Your task to perform on an android device: uninstall "Microsoft Outlook" Image 0: 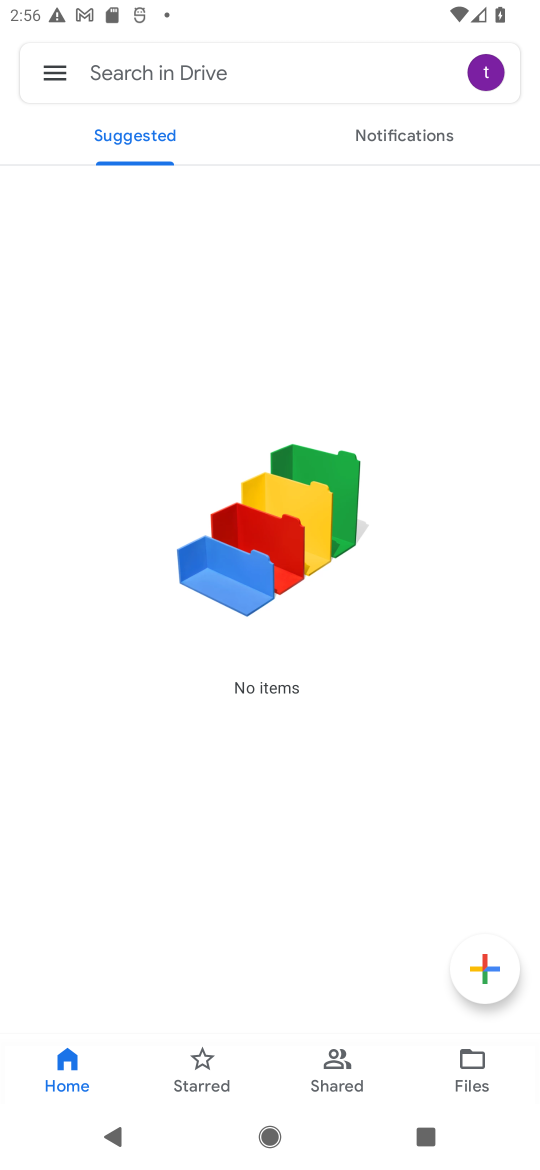
Step 0: press home button
Your task to perform on an android device: uninstall "Microsoft Outlook" Image 1: 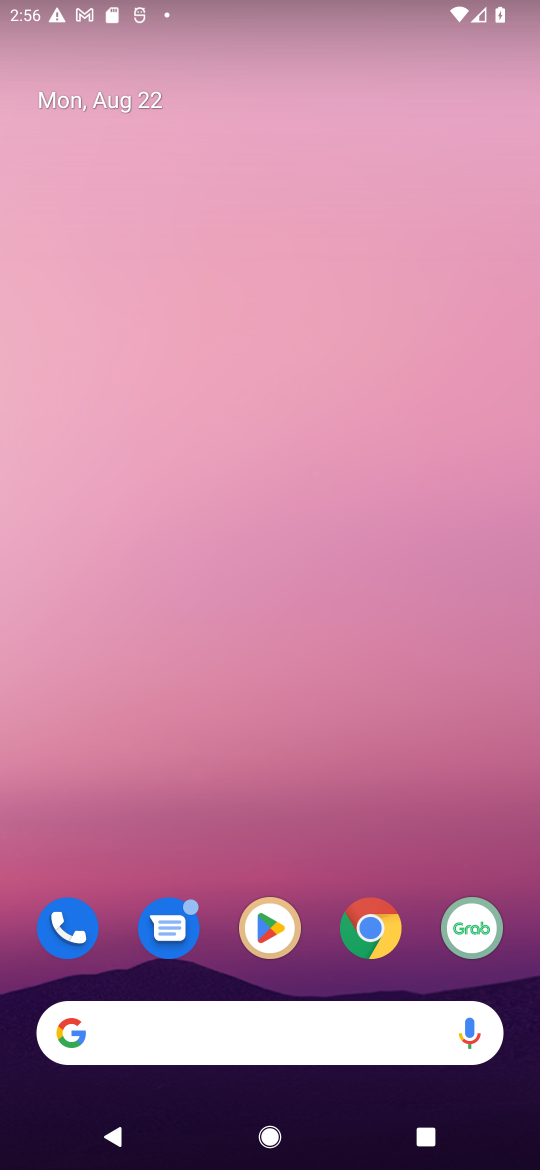
Step 1: click (258, 933)
Your task to perform on an android device: uninstall "Microsoft Outlook" Image 2: 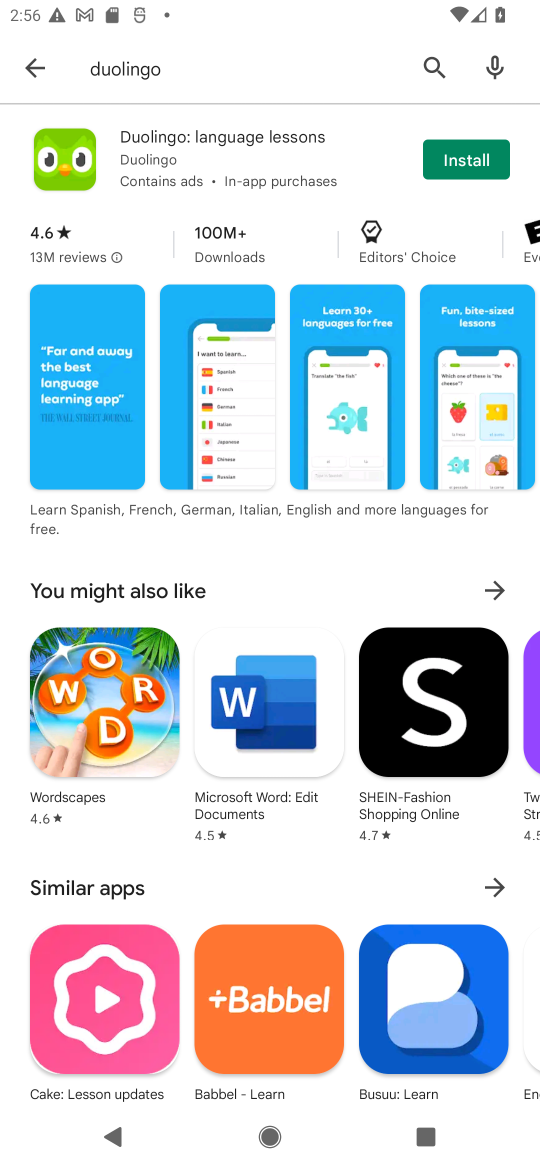
Step 2: click (214, 73)
Your task to perform on an android device: uninstall "Microsoft Outlook" Image 3: 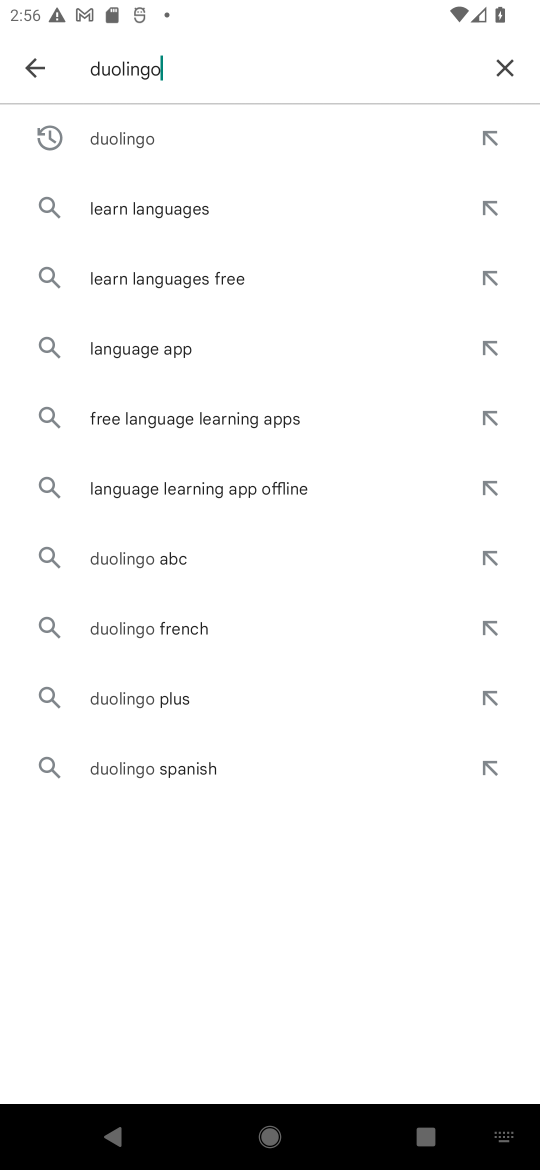
Step 3: click (502, 65)
Your task to perform on an android device: uninstall "Microsoft Outlook" Image 4: 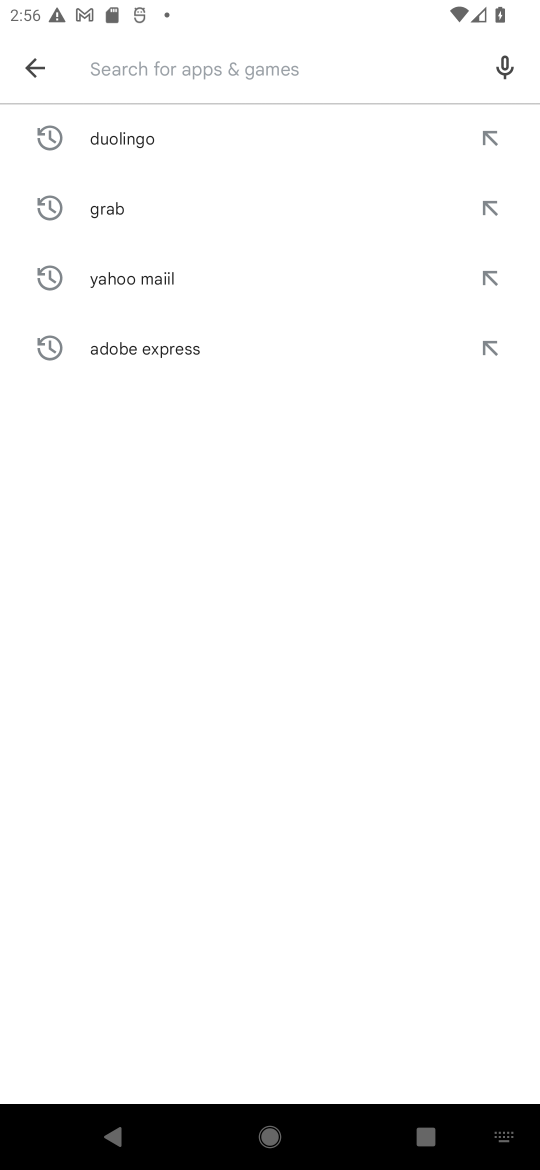
Step 4: type "microsoft Outlook"
Your task to perform on an android device: uninstall "Microsoft Outlook" Image 5: 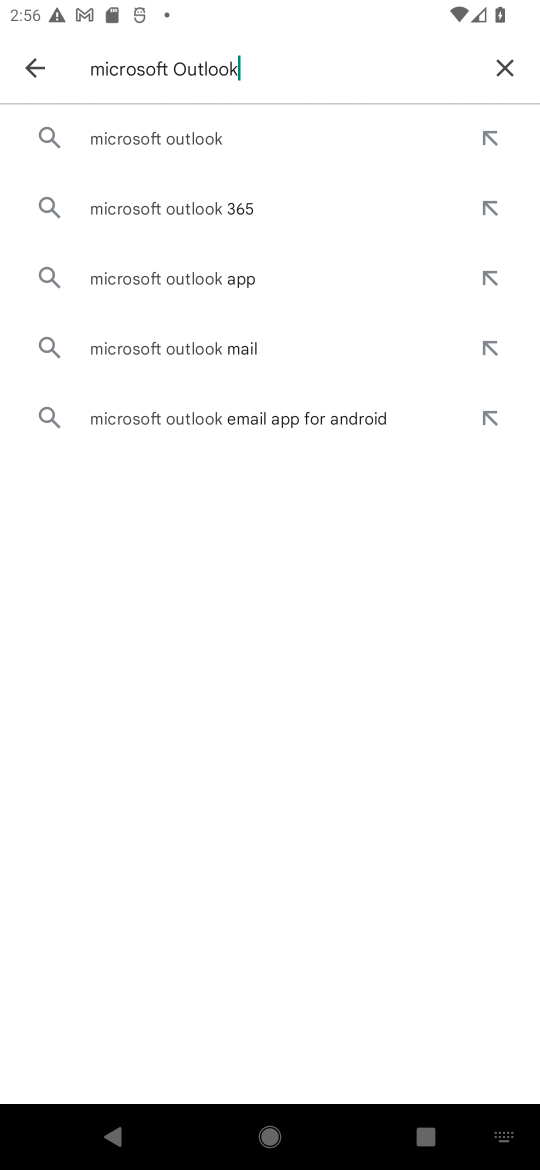
Step 5: click (175, 152)
Your task to perform on an android device: uninstall "Microsoft Outlook" Image 6: 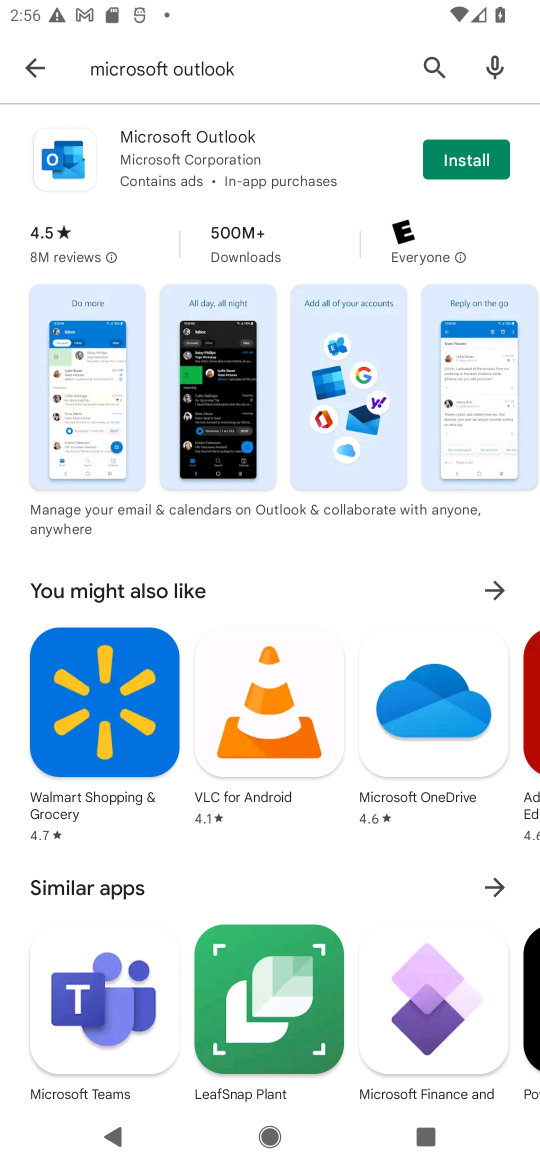
Step 6: task complete